Your task to perform on an android device: add a contact Image 0: 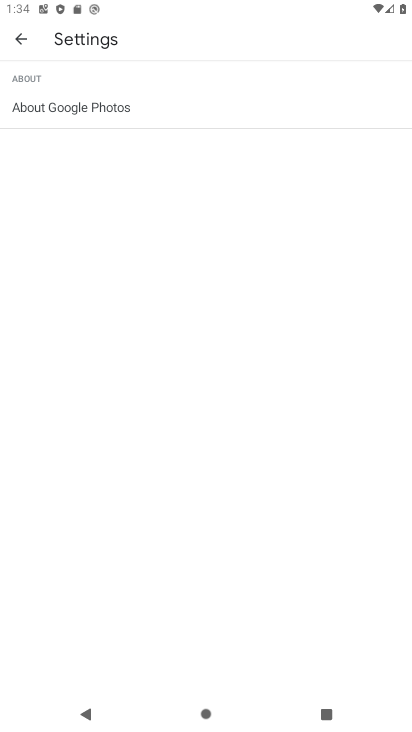
Step 0: press back button
Your task to perform on an android device: add a contact Image 1: 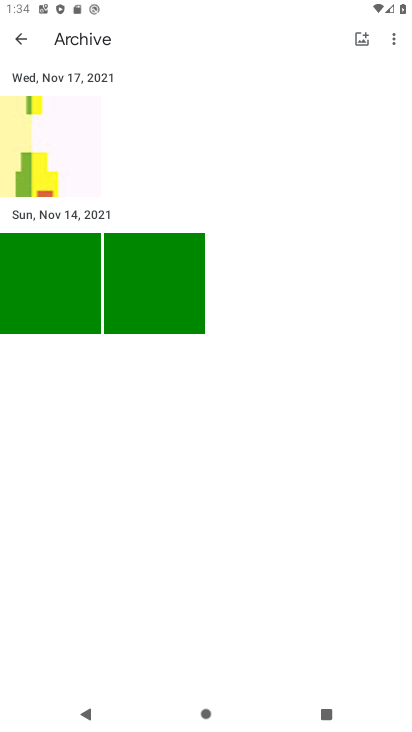
Step 1: press back button
Your task to perform on an android device: add a contact Image 2: 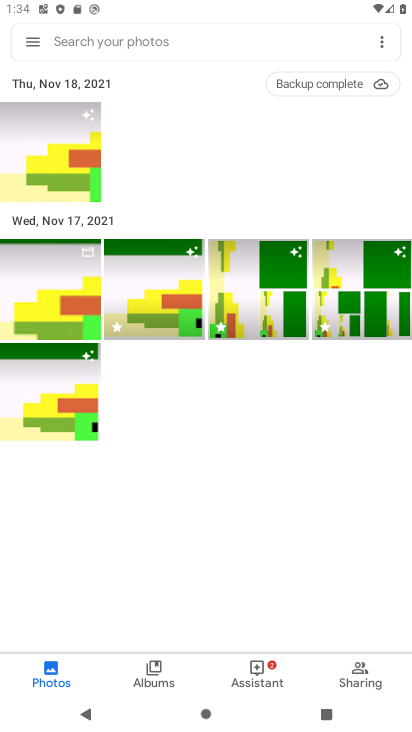
Step 2: press home button
Your task to perform on an android device: add a contact Image 3: 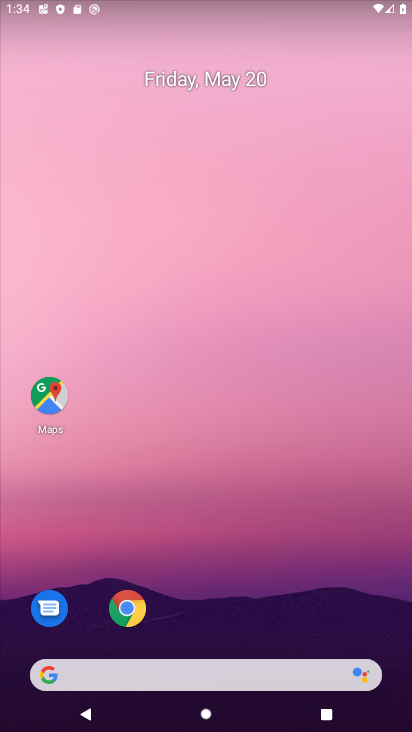
Step 3: drag from (192, 604) to (298, 66)
Your task to perform on an android device: add a contact Image 4: 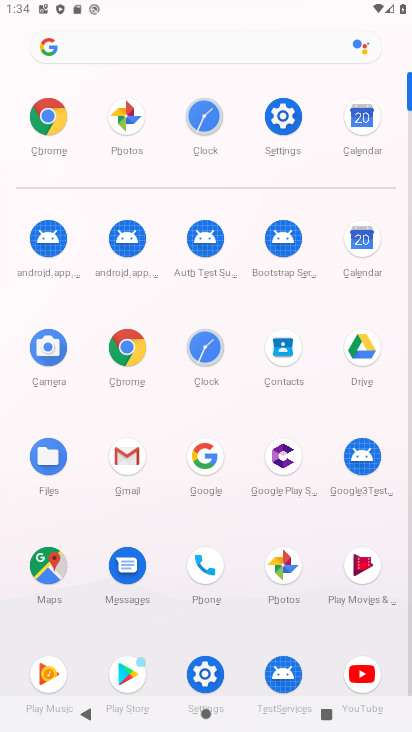
Step 4: click (281, 355)
Your task to perform on an android device: add a contact Image 5: 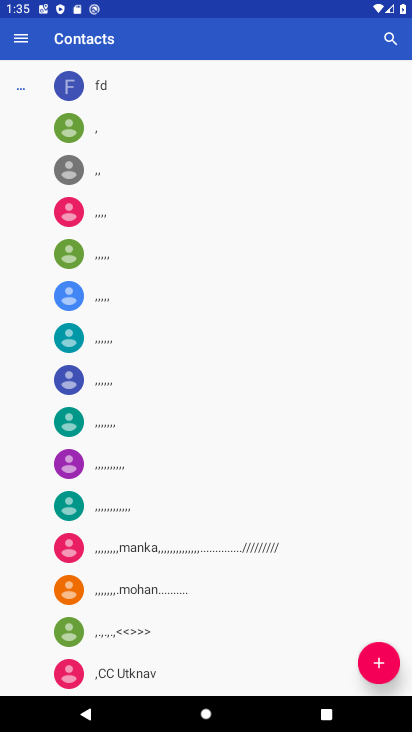
Step 5: click (373, 665)
Your task to perform on an android device: add a contact Image 6: 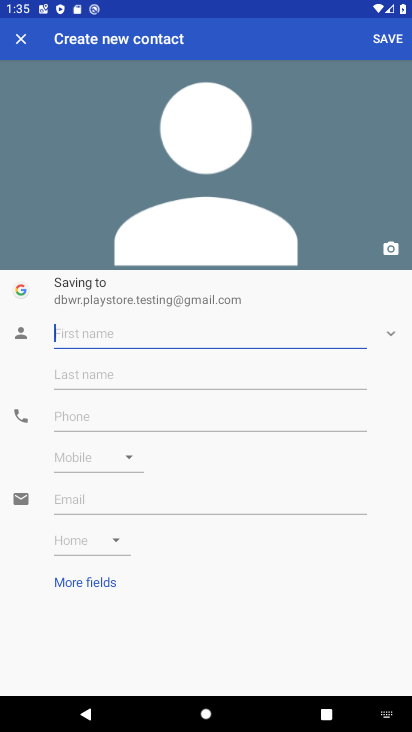
Step 6: click (59, 340)
Your task to perform on an android device: add a contact Image 7: 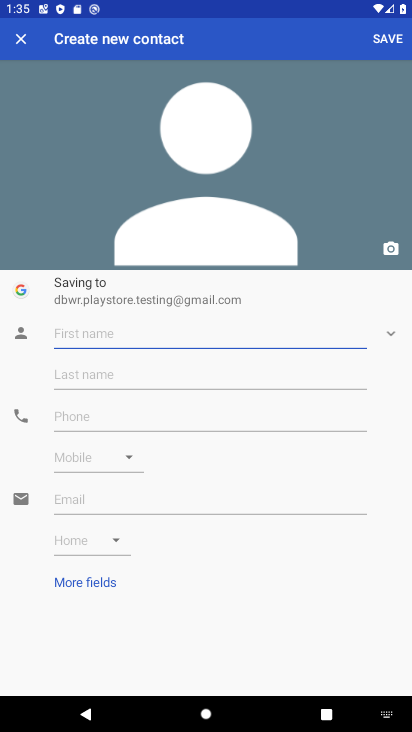
Step 7: type "jbjb"
Your task to perform on an android device: add a contact Image 8: 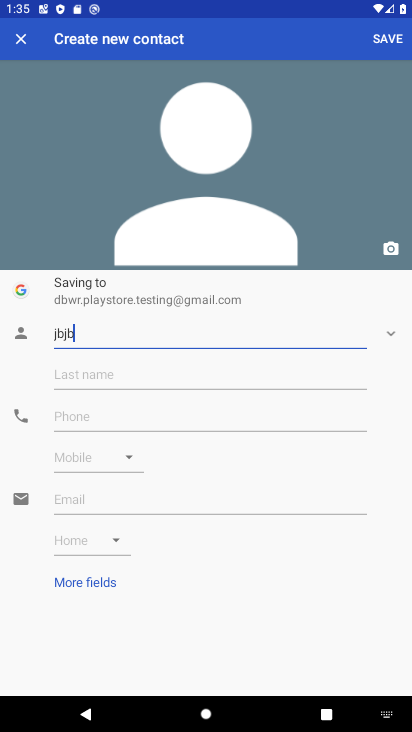
Step 8: click (69, 418)
Your task to perform on an android device: add a contact Image 9: 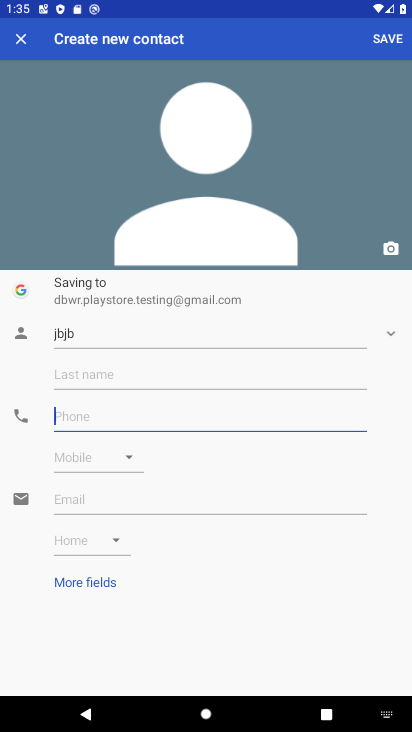
Step 9: type "79797"
Your task to perform on an android device: add a contact Image 10: 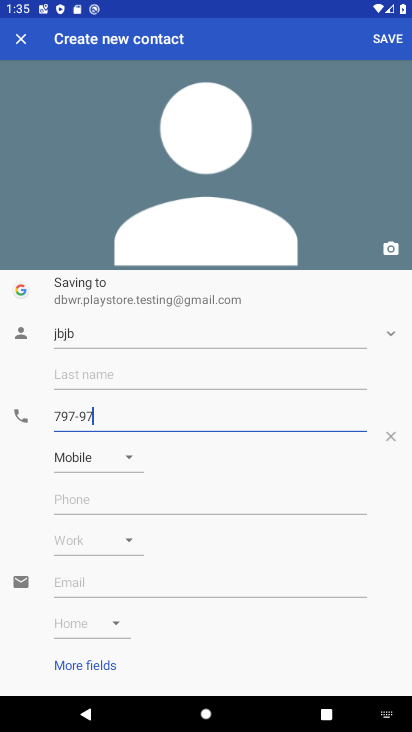
Step 10: click (398, 35)
Your task to perform on an android device: add a contact Image 11: 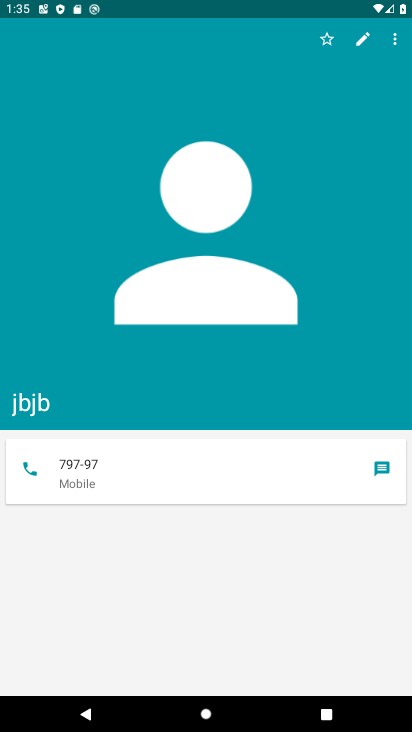
Step 11: task complete